Your task to perform on an android device: Search for Mexican restaurants on Maps Image 0: 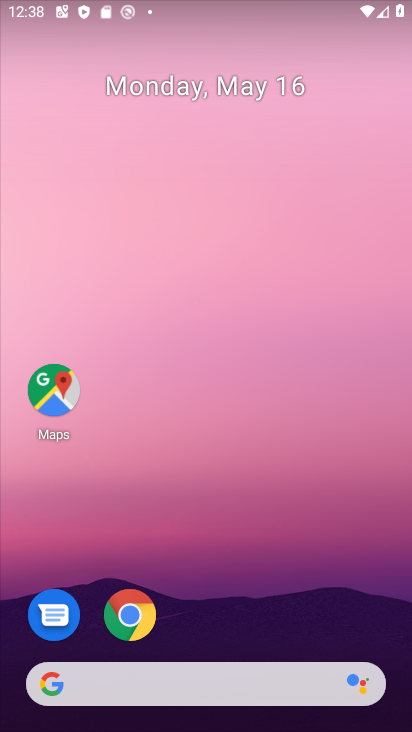
Step 0: click (64, 396)
Your task to perform on an android device: Search for Mexican restaurants on Maps Image 1: 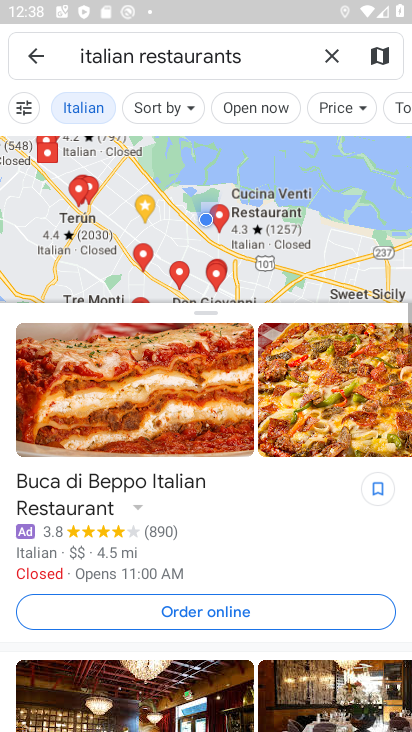
Step 1: click (267, 52)
Your task to perform on an android device: Search for Mexican restaurants on Maps Image 2: 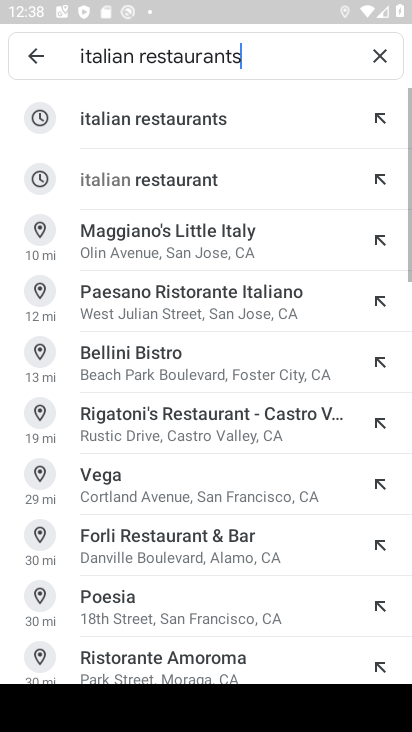
Step 2: click (369, 50)
Your task to perform on an android device: Search for Mexican restaurants on Maps Image 3: 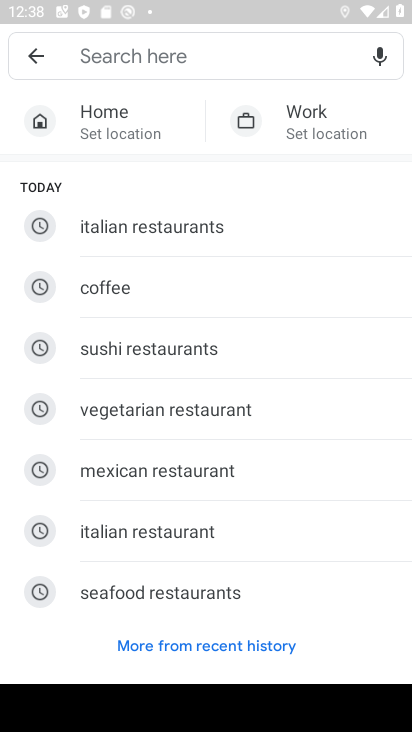
Step 3: type "Mexican restaurants"
Your task to perform on an android device: Search for Mexican restaurants on Maps Image 4: 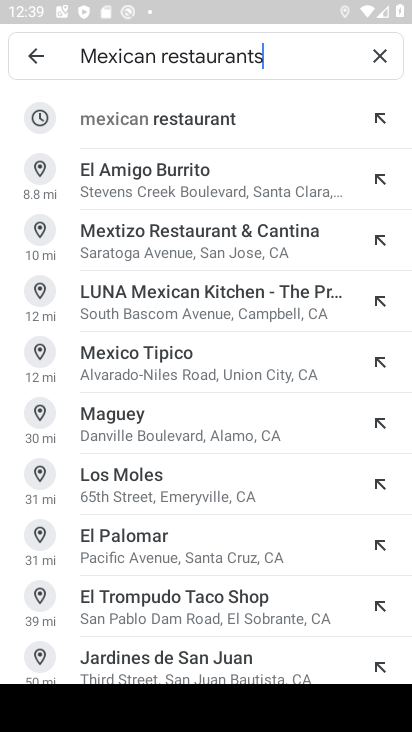
Step 4: press enter
Your task to perform on an android device: Search for Mexican restaurants on Maps Image 5: 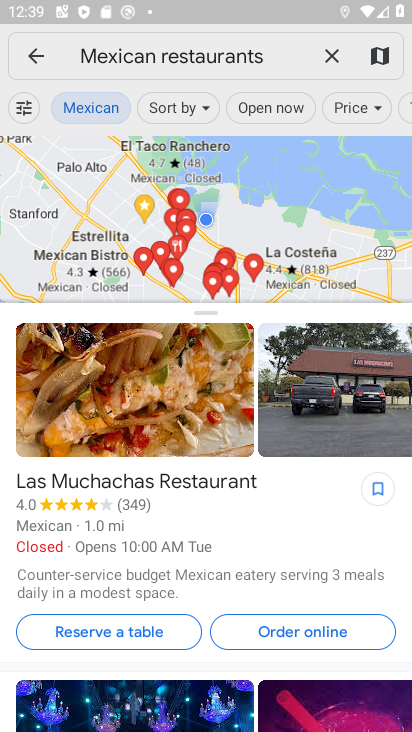
Step 5: task complete